Your task to perform on an android device: Search for lenovo thinkpad on ebay, select the first entry, and add it to the cart. Image 0: 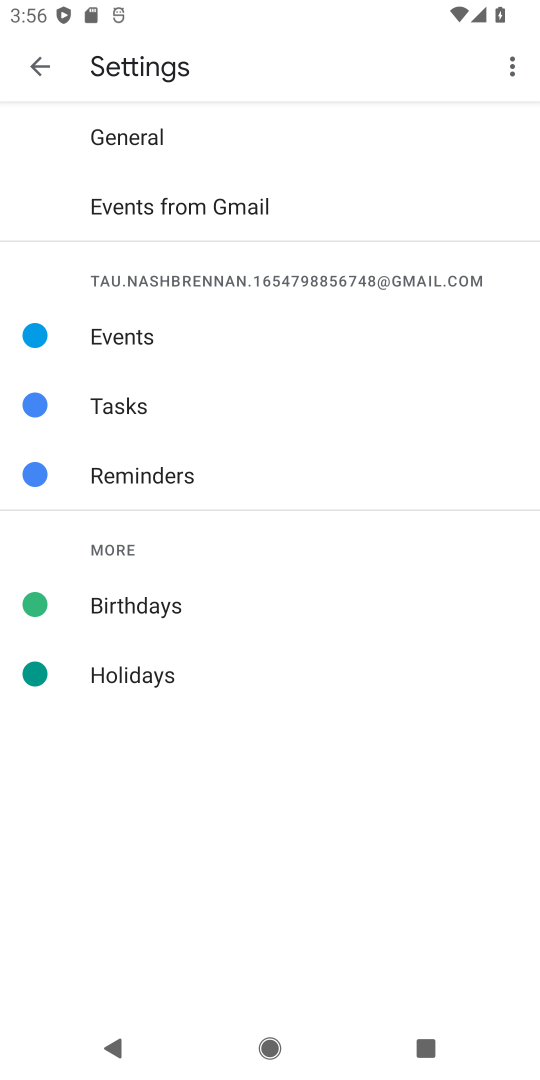
Step 0: press home button
Your task to perform on an android device: Search for lenovo thinkpad on ebay, select the first entry, and add it to the cart. Image 1: 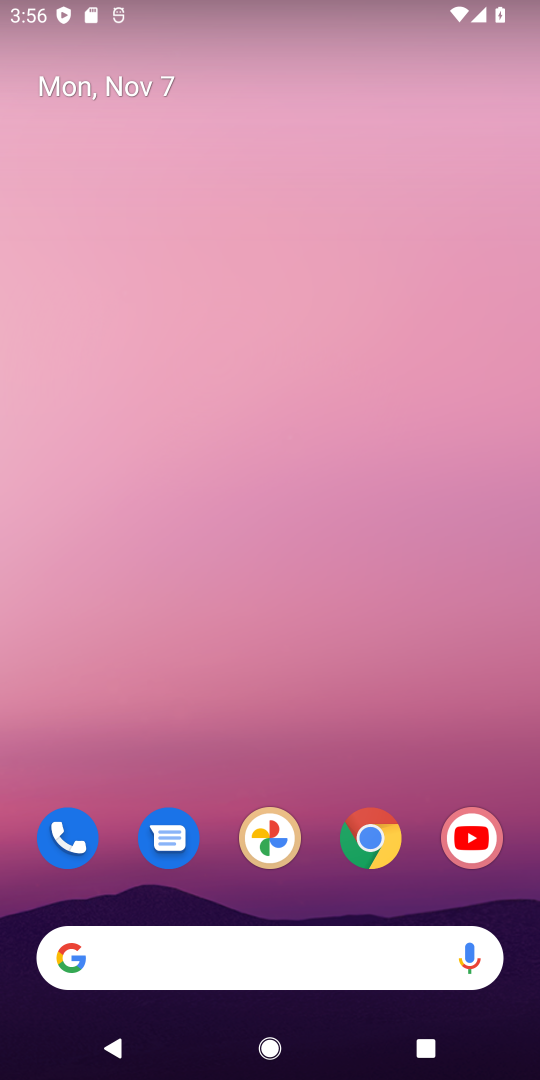
Step 1: click (377, 831)
Your task to perform on an android device: Search for lenovo thinkpad on ebay, select the first entry, and add it to the cart. Image 2: 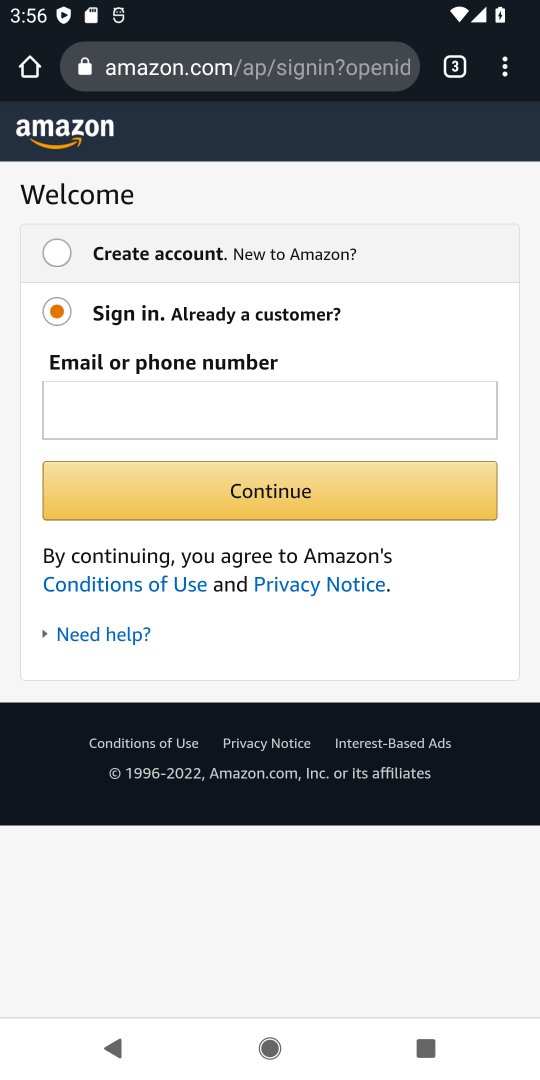
Step 2: click (454, 63)
Your task to perform on an android device: Search for lenovo thinkpad on ebay, select the first entry, and add it to the cart. Image 3: 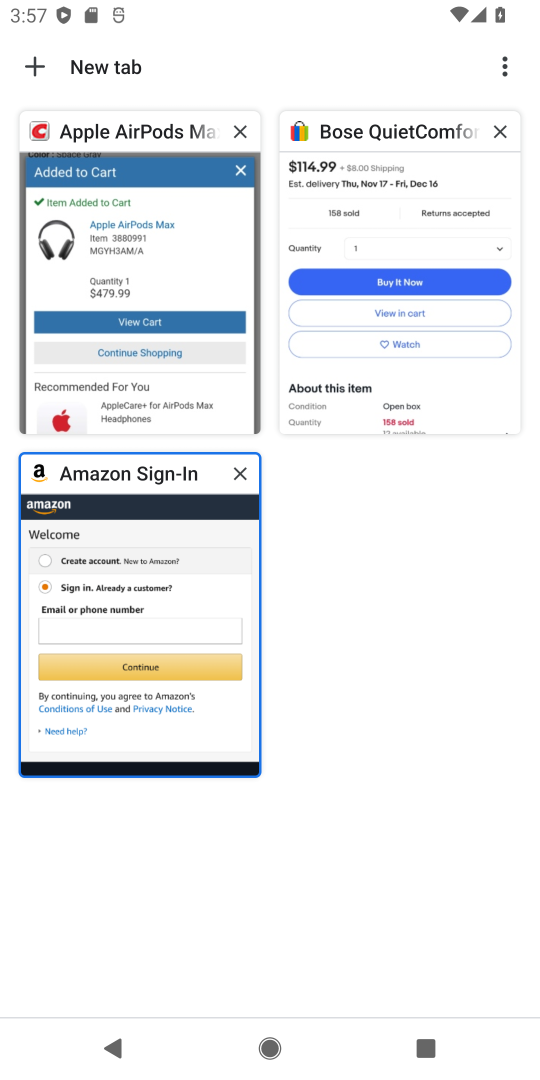
Step 3: click (394, 179)
Your task to perform on an android device: Search for lenovo thinkpad on ebay, select the first entry, and add it to the cart. Image 4: 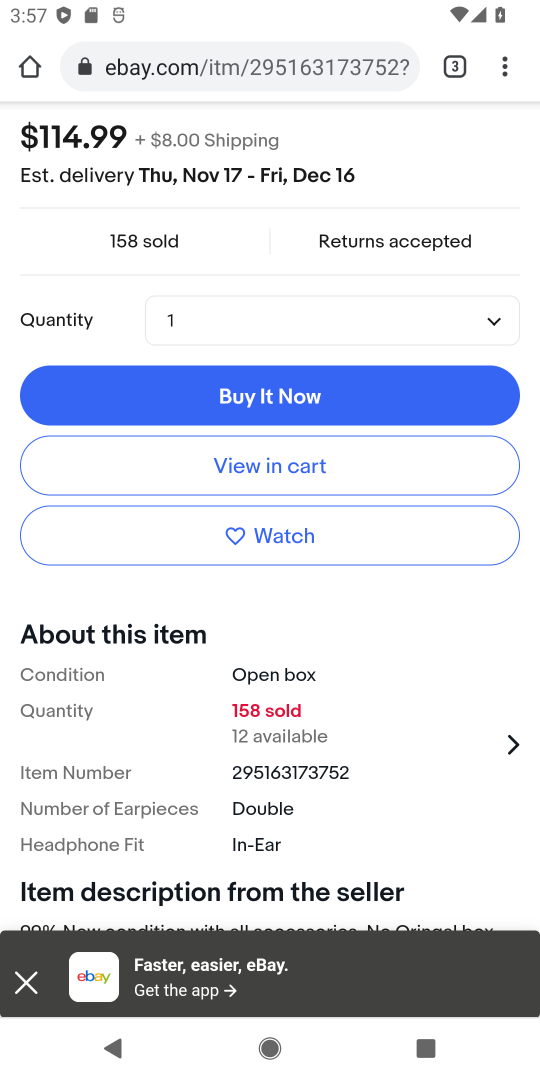
Step 4: drag from (425, 189) to (295, 1026)
Your task to perform on an android device: Search for lenovo thinkpad on ebay, select the first entry, and add it to the cart. Image 5: 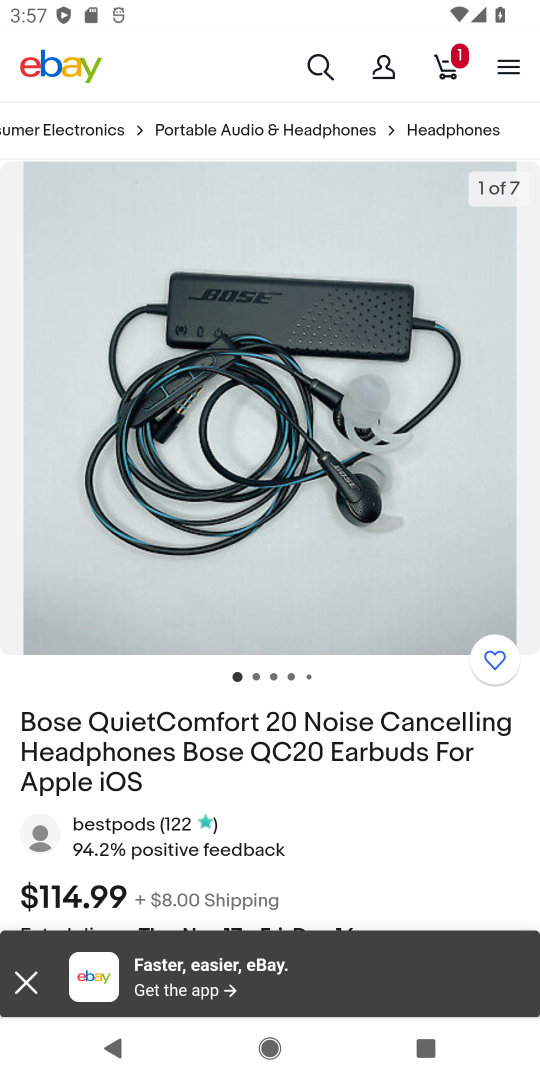
Step 5: click (324, 69)
Your task to perform on an android device: Search for lenovo thinkpad on ebay, select the first entry, and add it to the cart. Image 6: 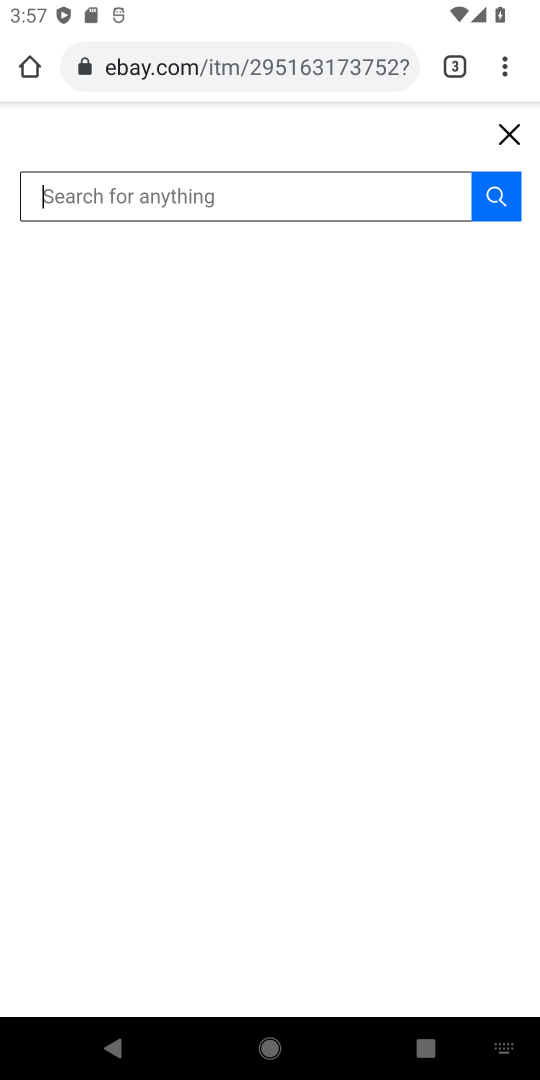
Step 6: type "lenovo thinkpad "
Your task to perform on an android device: Search for lenovo thinkpad on ebay, select the first entry, and add it to the cart. Image 7: 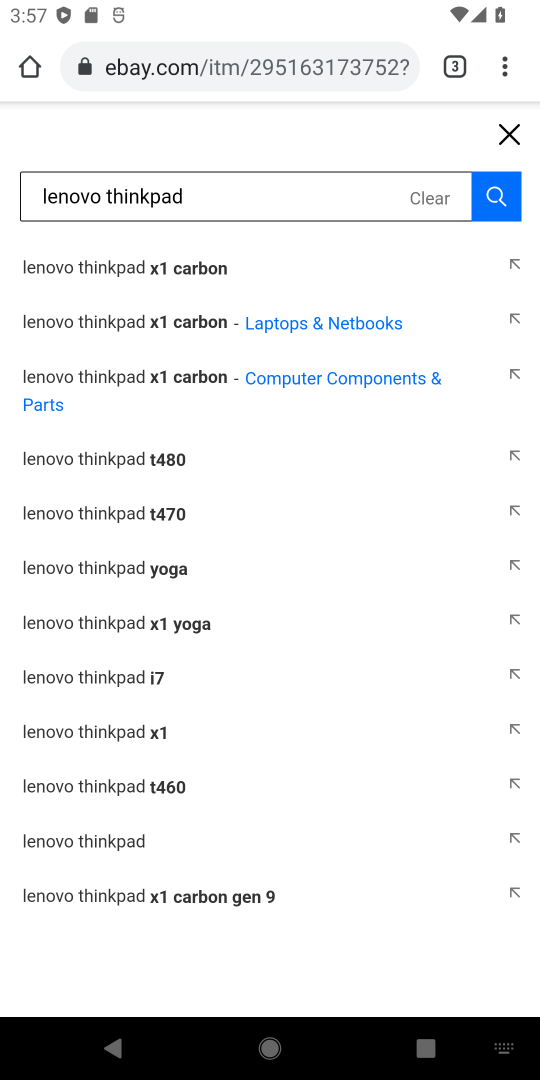
Step 7: click (74, 321)
Your task to perform on an android device: Search for lenovo thinkpad on ebay, select the first entry, and add it to the cart. Image 8: 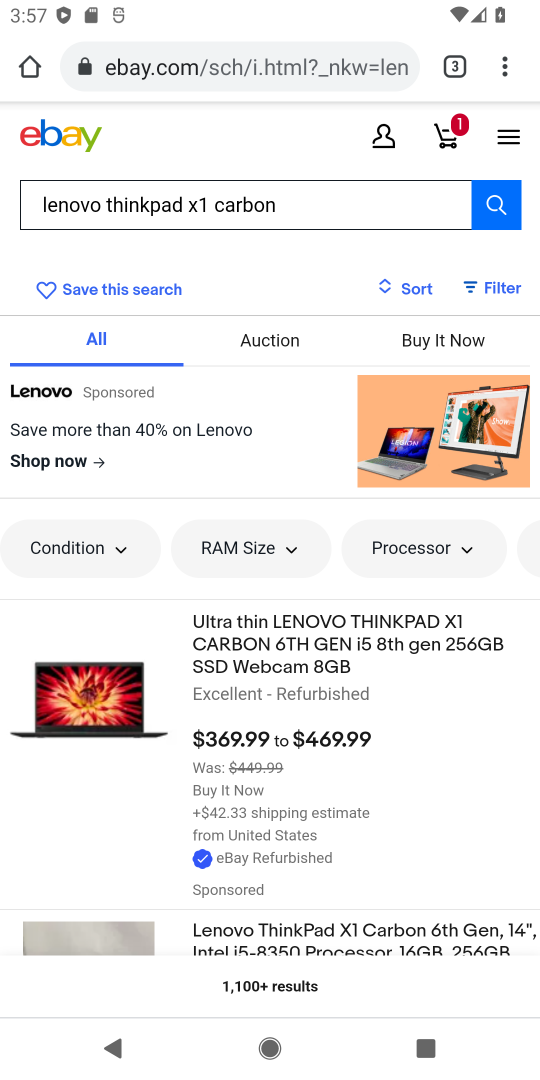
Step 8: click (377, 930)
Your task to perform on an android device: Search for lenovo thinkpad on ebay, select the first entry, and add it to the cart. Image 9: 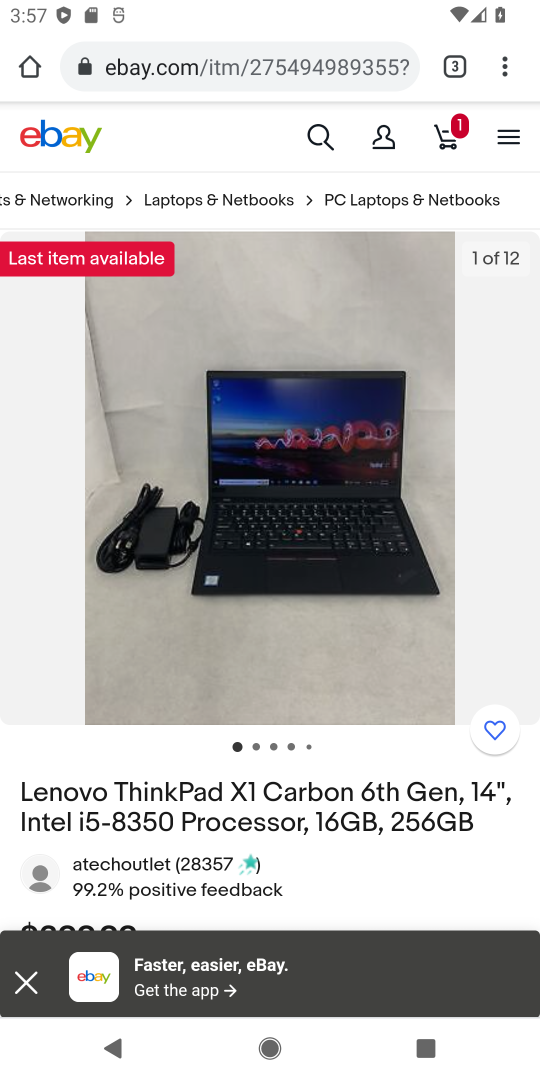
Step 9: drag from (370, 888) to (445, 293)
Your task to perform on an android device: Search for lenovo thinkpad on ebay, select the first entry, and add it to the cart. Image 10: 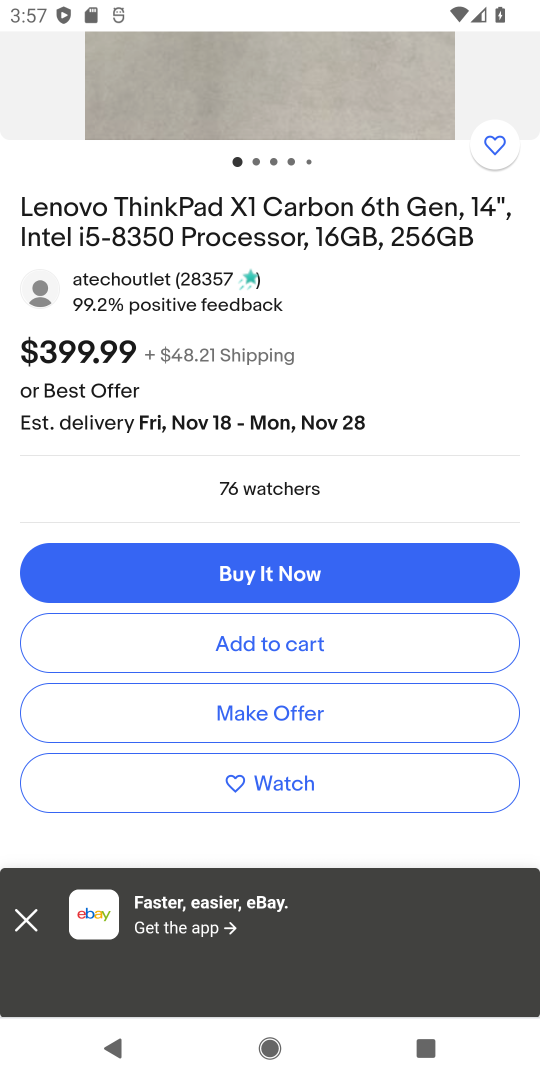
Step 10: click (311, 634)
Your task to perform on an android device: Search for lenovo thinkpad on ebay, select the first entry, and add it to the cart. Image 11: 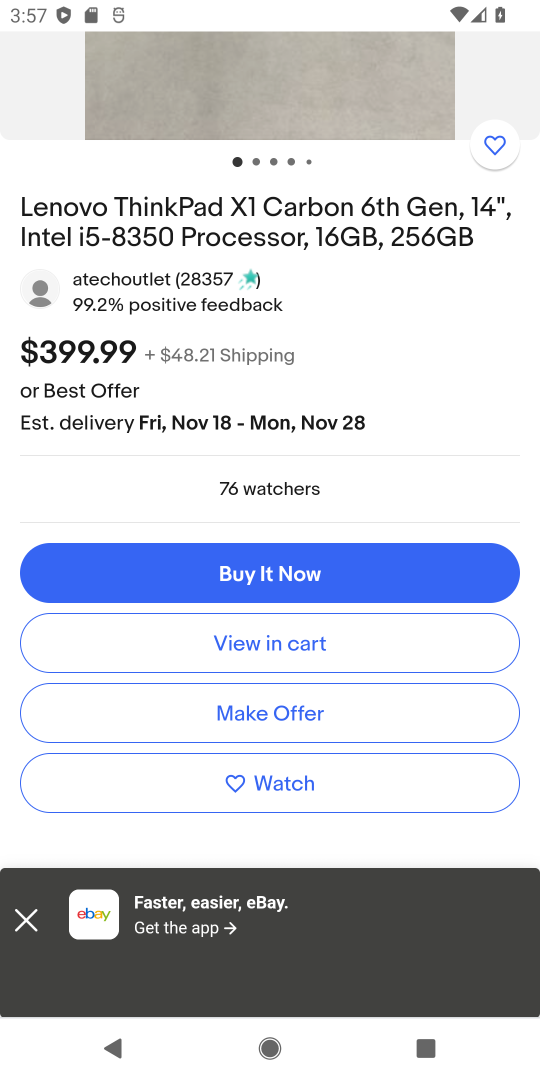
Step 11: task complete